Your task to perform on an android device: move an email to a new category in the gmail app Image 0: 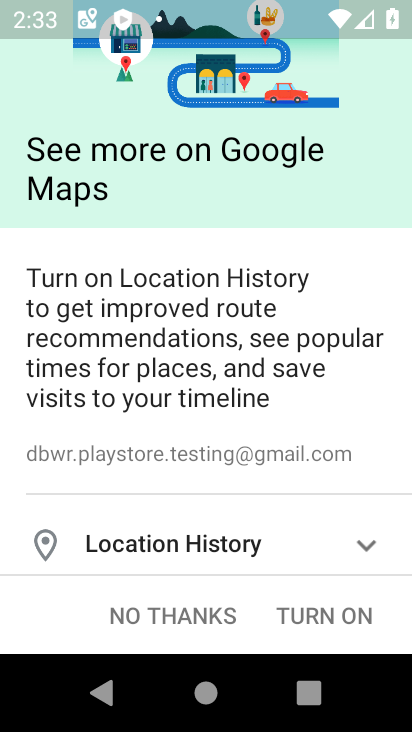
Step 0: press home button
Your task to perform on an android device: move an email to a new category in the gmail app Image 1: 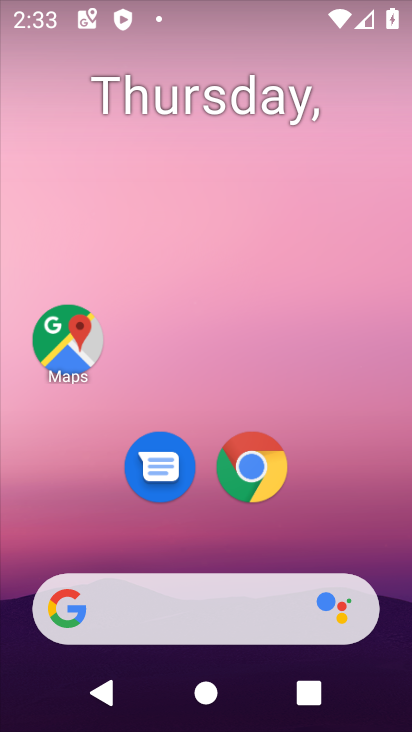
Step 1: drag from (214, 520) to (230, 149)
Your task to perform on an android device: move an email to a new category in the gmail app Image 2: 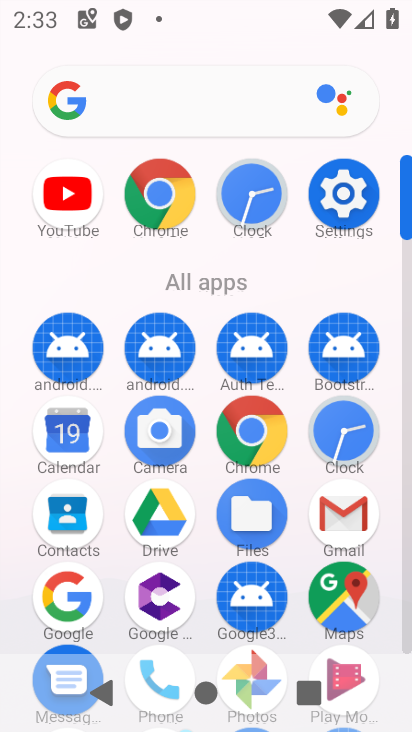
Step 2: click (335, 508)
Your task to perform on an android device: move an email to a new category in the gmail app Image 3: 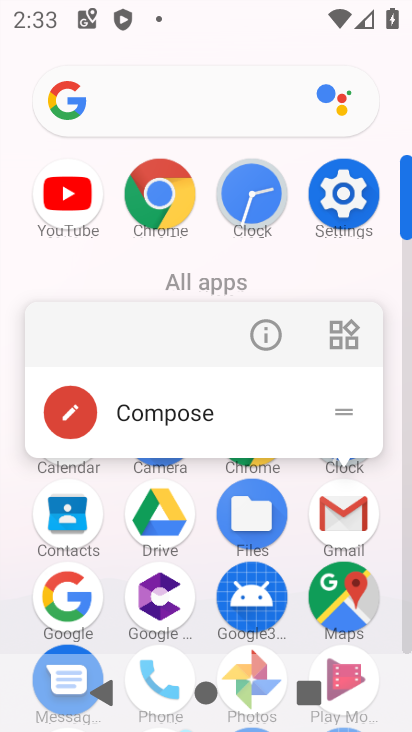
Step 3: click (258, 335)
Your task to perform on an android device: move an email to a new category in the gmail app Image 4: 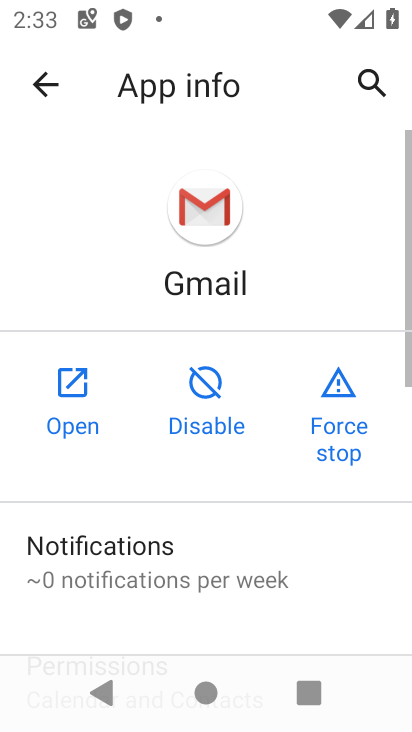
Step 4: click (91, 373)
Your task to perform on an android device: move an email to a new category in the gmail app Image 5: 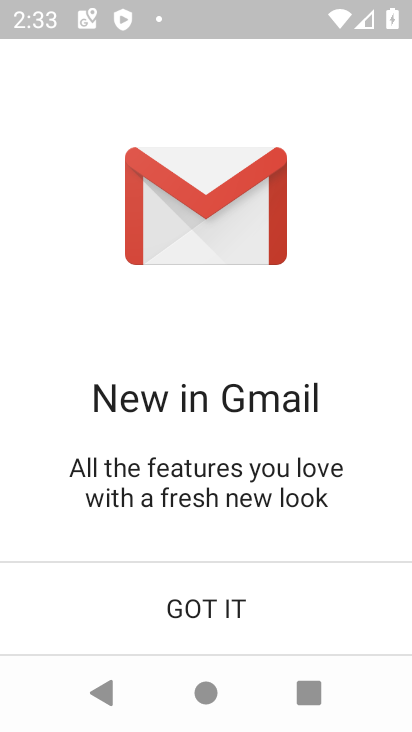
Step 5: click (201, 590)
Your task to perform on an android device: move an email to a new category in the gmail app Image 6: 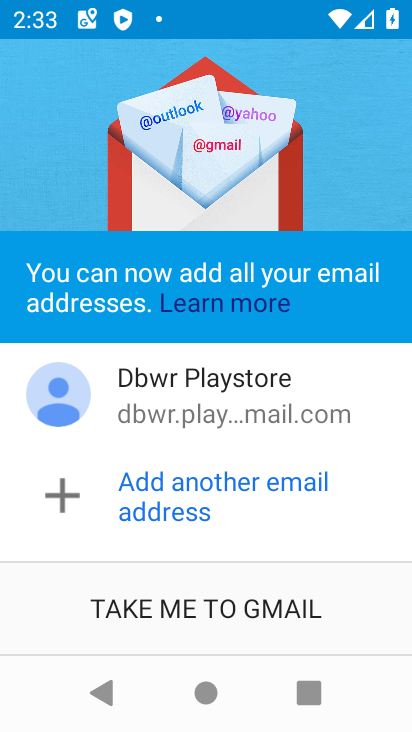
Step 6: click (193, 601)
Your task to perform on an android device: move an email to a new category in the gmail app Image 7: 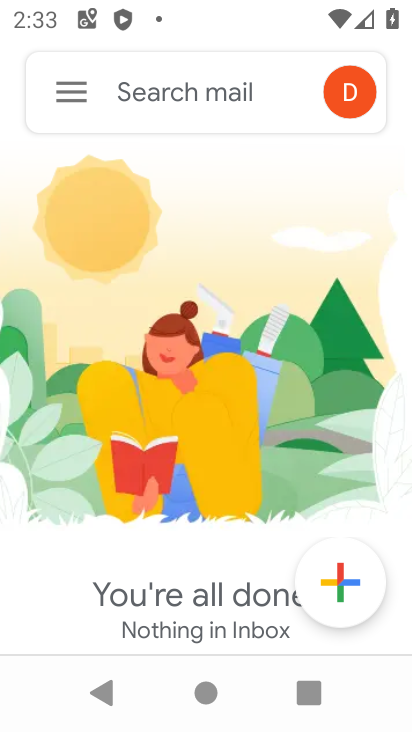
Step 7: click (59, 84)
Your task to perform on an android device: move an email to a new category in the gmail app Image 8: 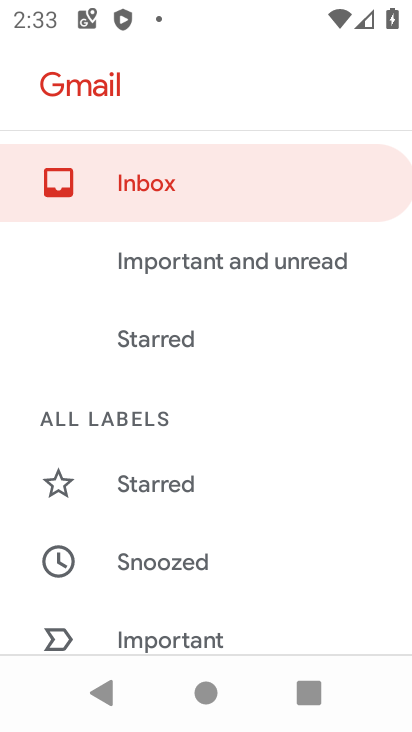
Step 8: drag from (196, 601) to (235, 163)
Your task to perform on an android device: move an email to a new category in the gmail app Image 9: 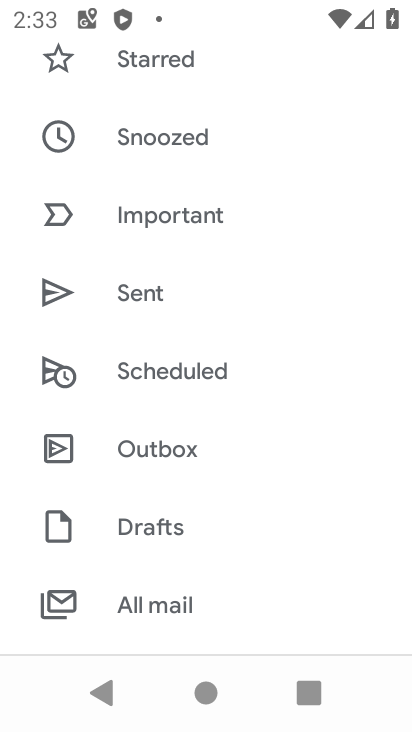
Step 9: drag from (187, 537) to (252, 169)
Your task to perform on an android device: move an email to a new category in the gmail app Image 10: 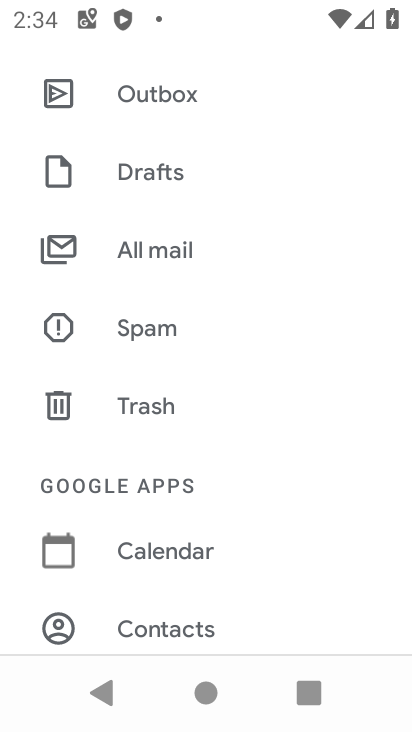
Step 10: click (154, 266)
Your task to perform on an android device: move an email to a new category in the gmail app Image 11: 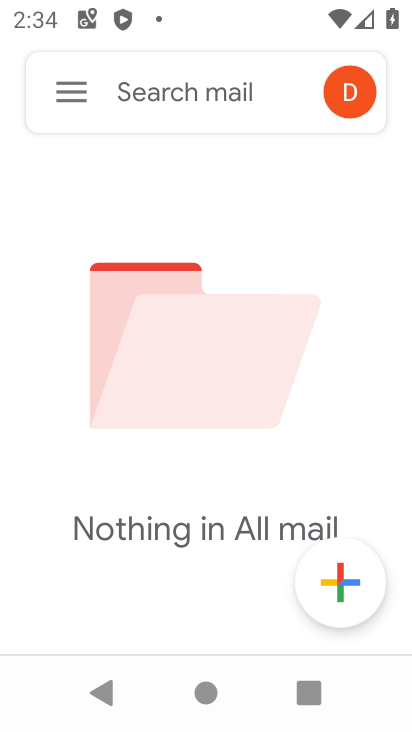
Step 11: task complete